Your task to perform on an android device: search for starred emails in the gmail app Image 0: 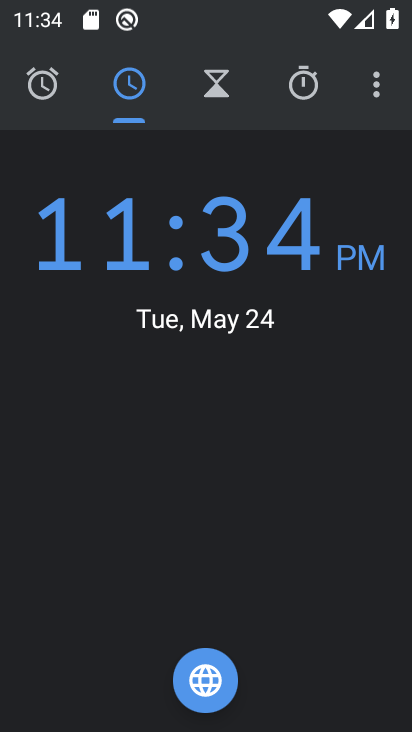
Step 0: press home button
Your task to perform on an android device: search for starred emails in the gmail app Image 1: 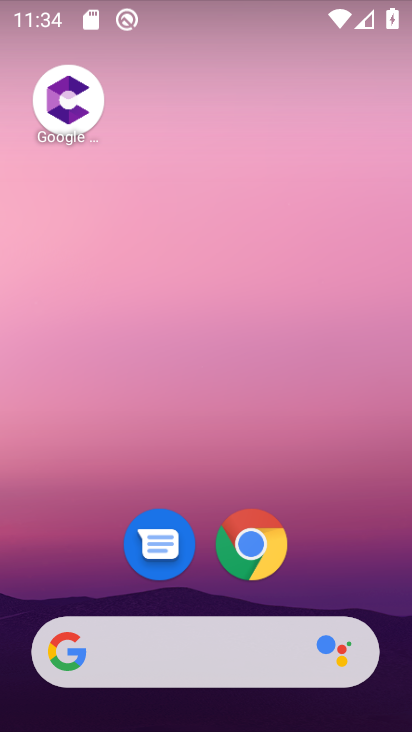
Step 1: drag from (210, 451) to (182, 67)
Your task to perform on an android device: search for starred emails in the gmail app Image 2: 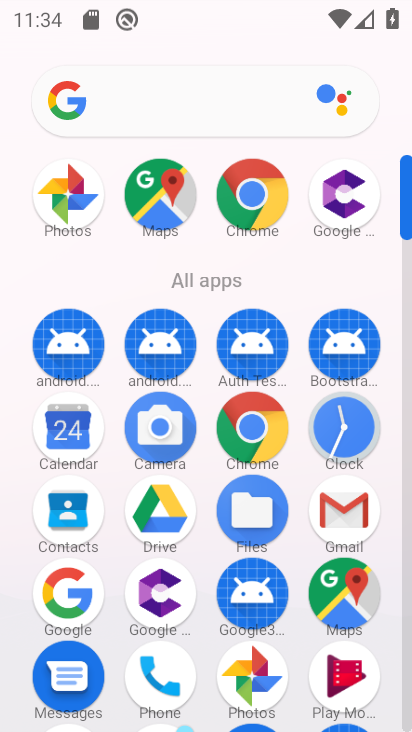
Step 2: click (341, 514)
Your task to perform on an android device: search for starred emails in the gmail app Image 3: 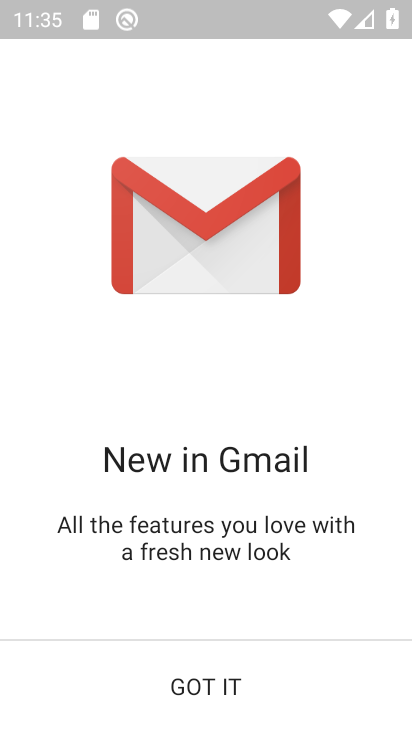
Step 3: click (191, 684)
Your task to perform on an android device: search for starred emails in the gmail app Image 4: 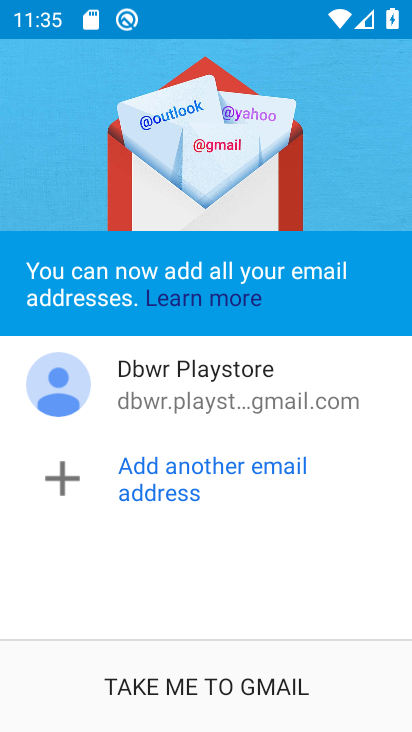
Step 4: click (179, 670)
Your task to perform on an android device: search for starred emails in the gmail app Image 5: 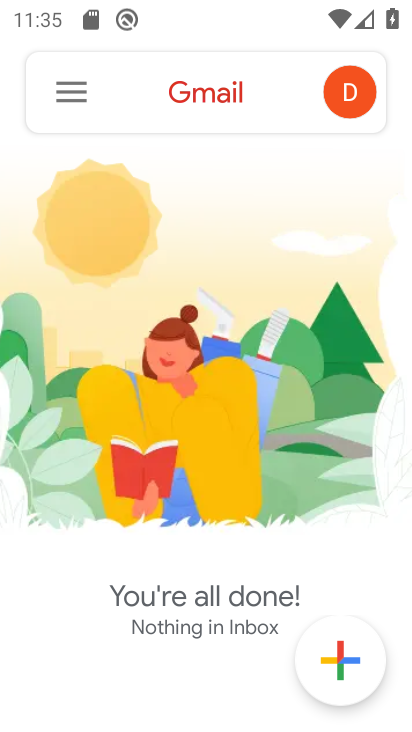
Step 5: click (73, 97)
Your task to perform on an android device: search for starred emails in the gmail app Image 6: 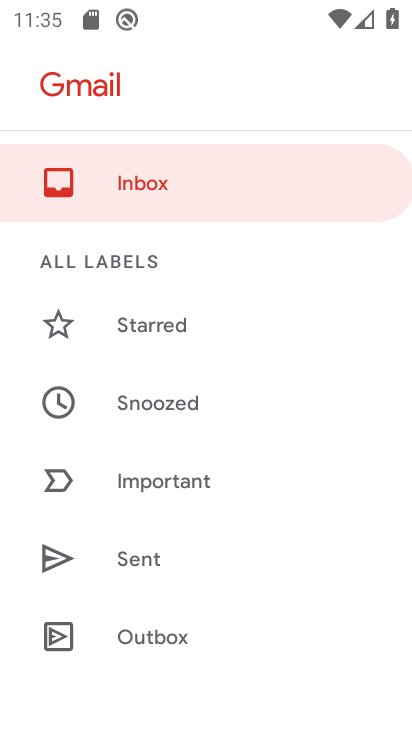
Step 6: click (146, 338)
Your task to perform on an android device: search for starred emails in the gmail app Image 7: 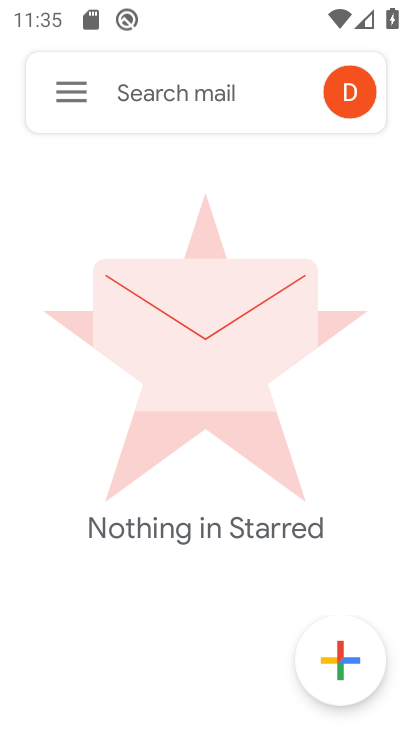
Step 7: task complete